Your task to perform on an android device: turn on showing notifications on the lock screen Image 0: 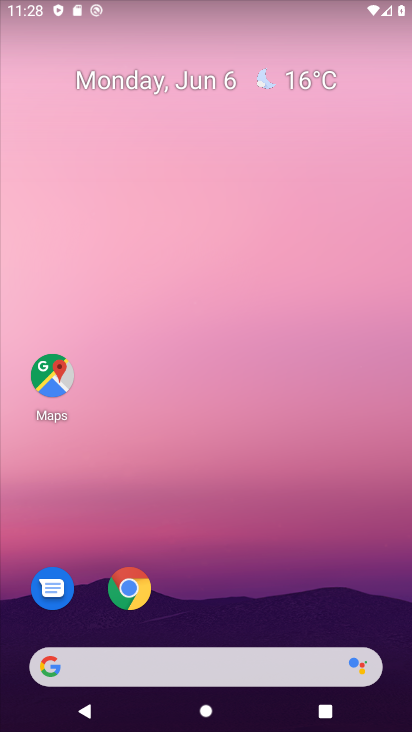
Step 0: drag from (200, 638) to (162, 6)
Your task to perform on an android device: turn on showing notifications on the lock screen Image 1: 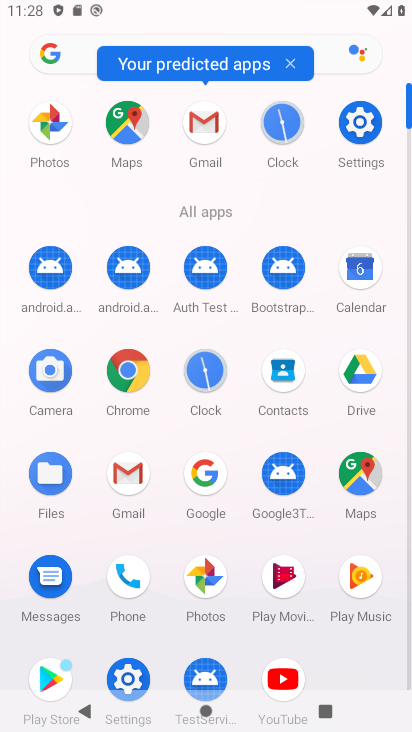
Step 1: click (360, 133)
Your task to perform on an android device: turn on showing notifications on the lock screen Image 2: 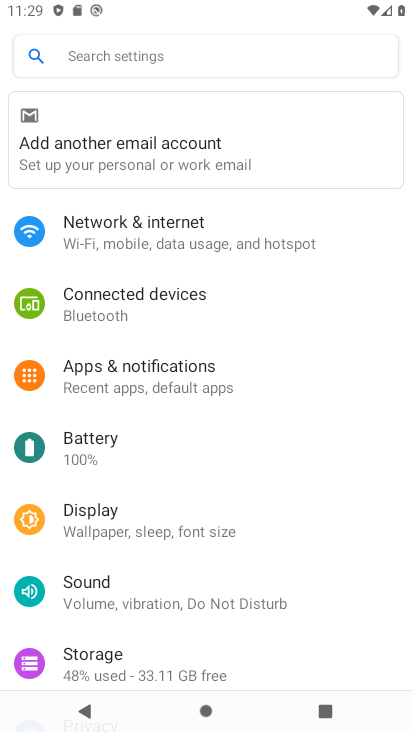
Step 2: click (170, 393)
Your task to perform on an android device: turn on showing notifications on the lock screen Image 3: 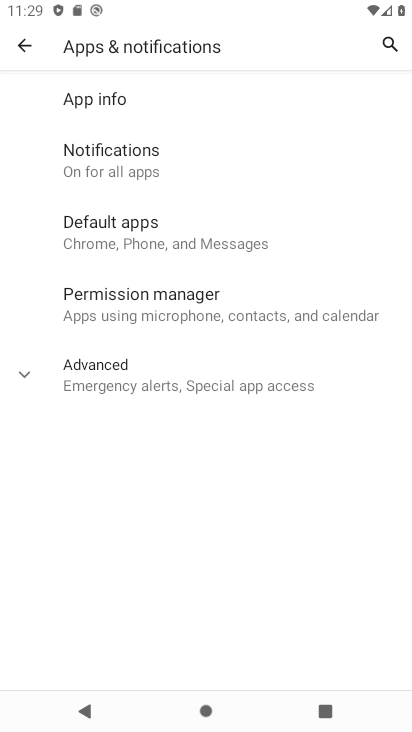
Step 3: click (24, 45)
Your task to perform on an android device: turn on showing notifications on the lock screen Image 4: 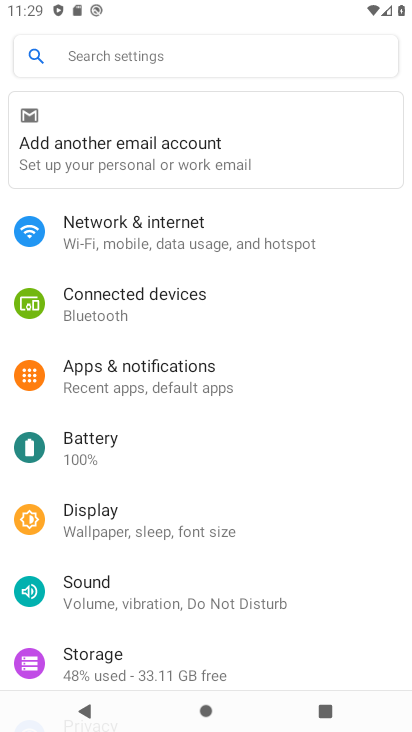
Step 4: drag from (310, 601) to (217, 174)
Your task to perform on an android device: turn on showing notifications on the lock screen Image 5: 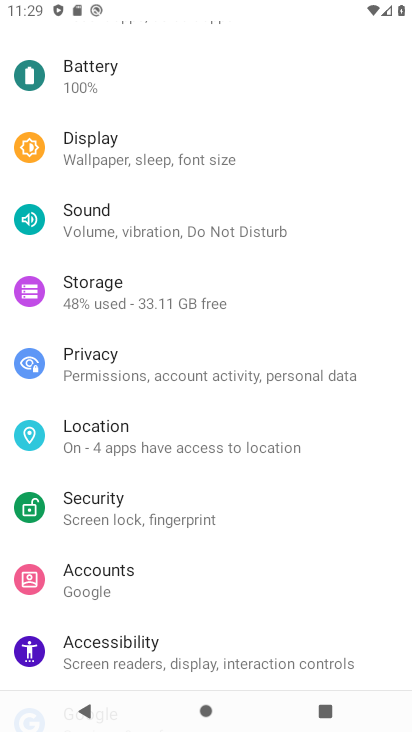
Step 5: drag from (196, 504) to (129, 135)
Your task to perform on an android device: turn on showing notifications on the lock screen Image 6: 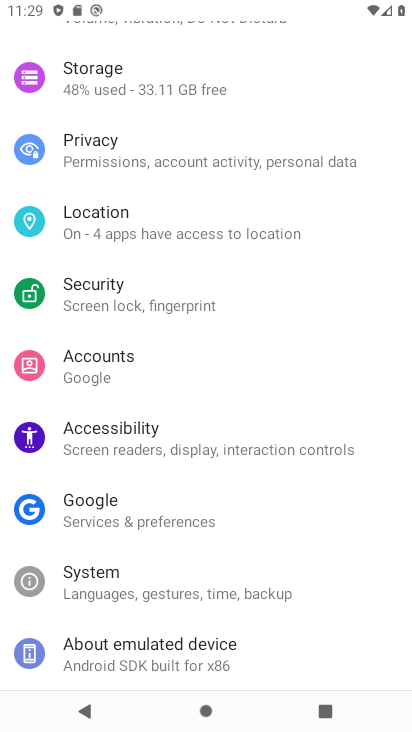
Step 6: drag from (129, 135) to (217, 708)
Your task to perform on an android device: turn on showing notifications on the lock screen Image 7: 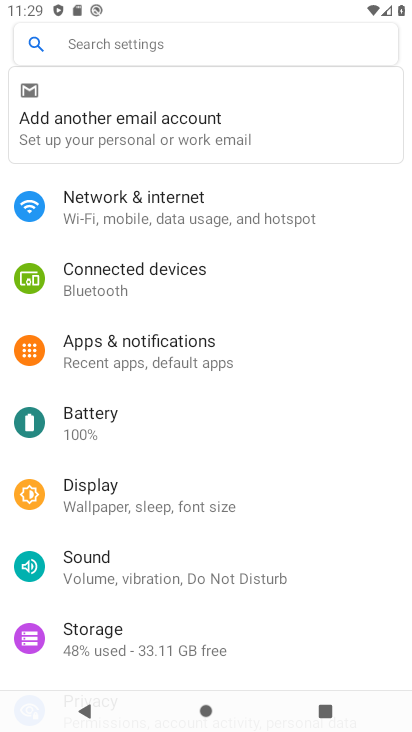
Step 7: click (200, 366)
Your task to perform on an android device: turn on showing notifications on the lock screen Image 8: 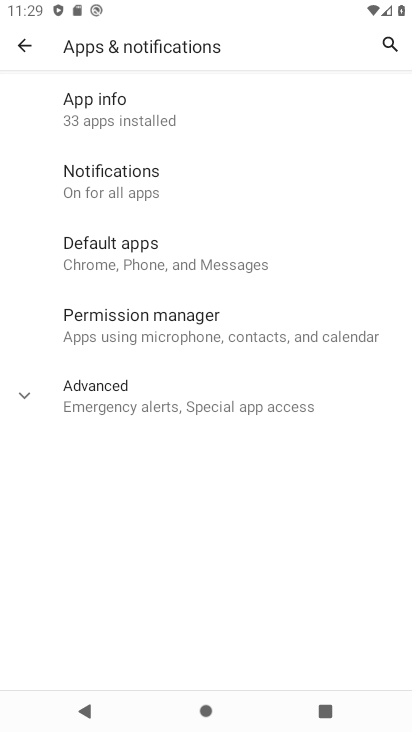
Step 8: click (103, 181)
Your task to perform on an android device: turn on showing notifications on the lock screen Image 9: 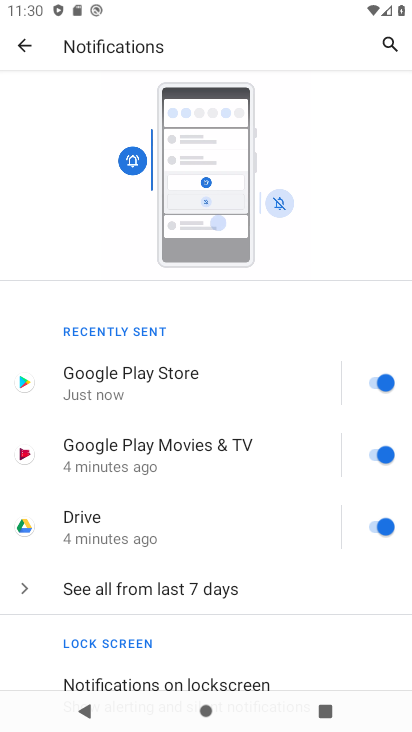
Step 9: click (127, 674)
Your task to perform on an android device: turn on showing notifications on the lock screen Image 10: 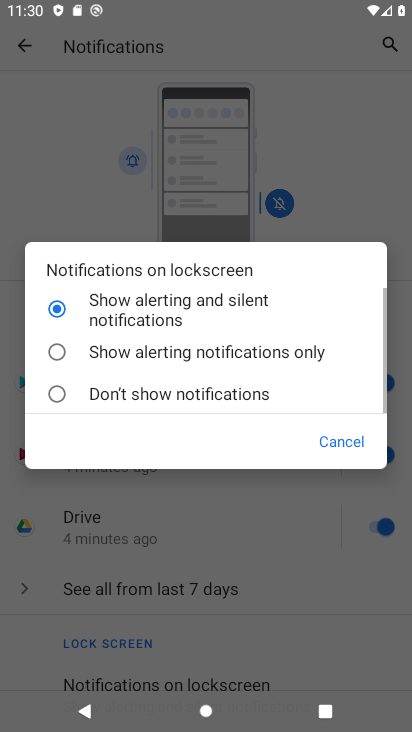
Step 10: click (80, 296)
Your task to perform on an android device: turn on showing notifications on the lock screen Image 11: 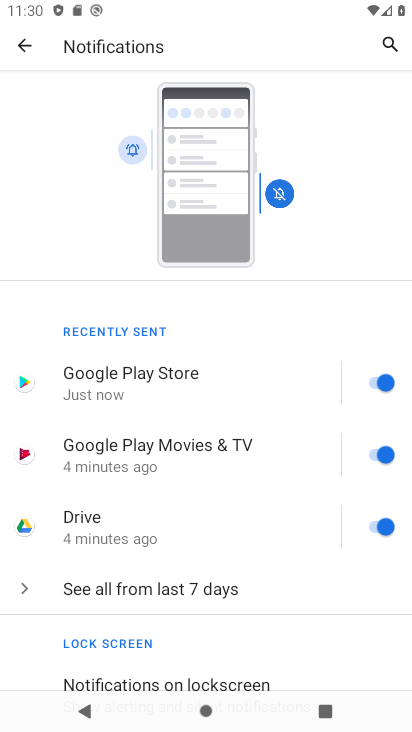
Step 11: task complete